Your task to perform on an android device: manage bookmarks in the chrome app Image 0: 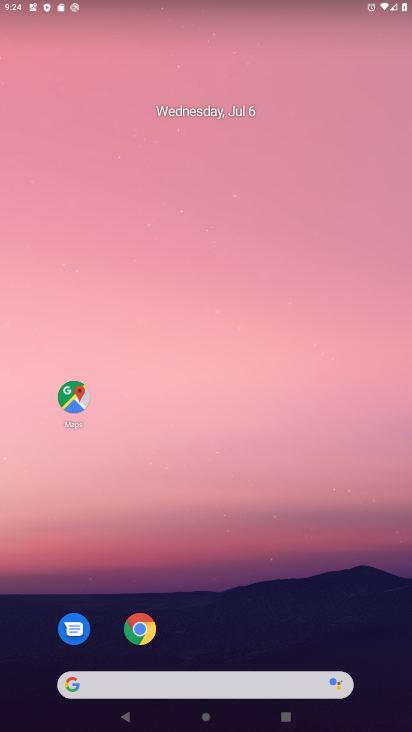
Step 0: click (133, 633)
Your task to perform on an android device: manage bookmarks in the chrome app Image 1: 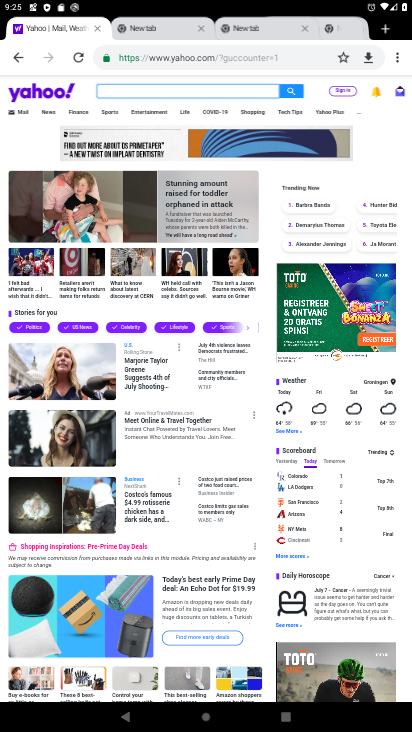
Step 1: click (394, 56)
Your task to perform on an android device: manage bookmarks in the chrome app Image 2: 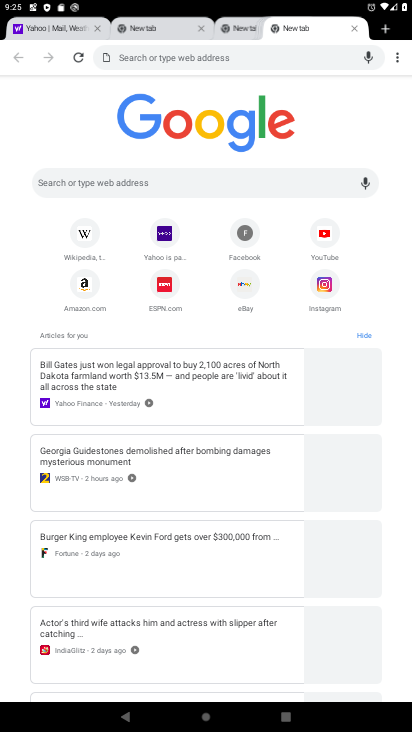
Step 2: click (393, 58)
Your task to perform on an android device: manage bookmarks in the chrome app Image 3: 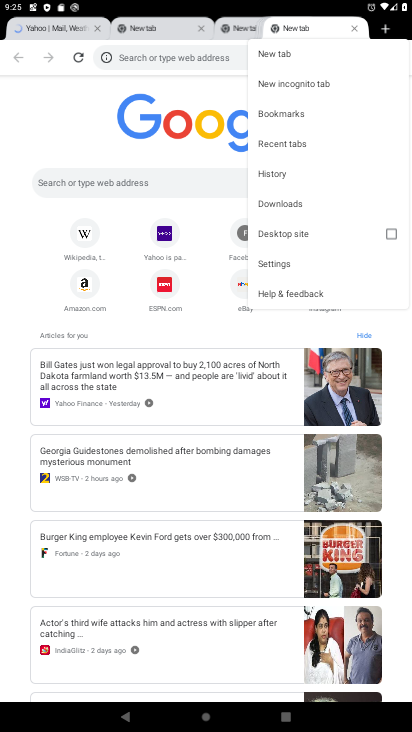
Step 3: click (284, 116)
Your task to perform on an android device: manage bookmarks in the chrome app Image 4: 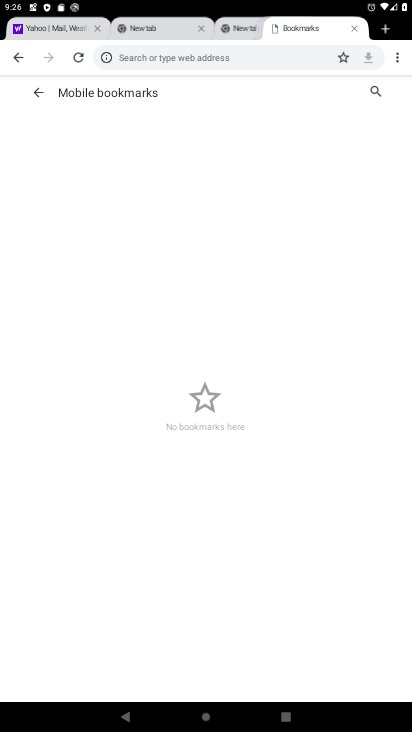
Step 4: task complete